Your task to perform on an android device: change text size in settings app Image 0: 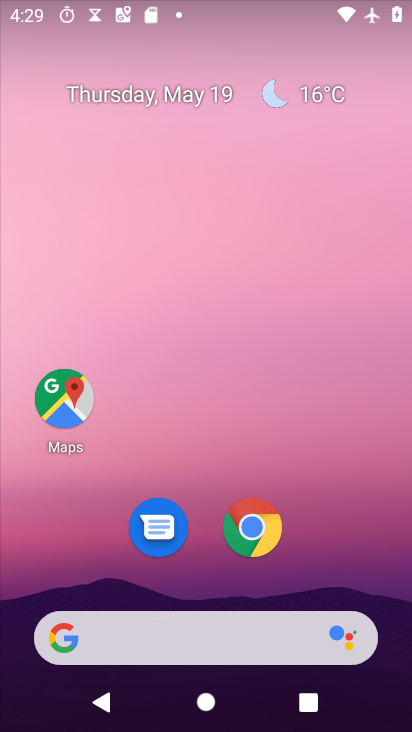
Step 0: drag from (326, 502) to (256, 46)
Your task to perform on an android device: change text size in settings app Image 1: 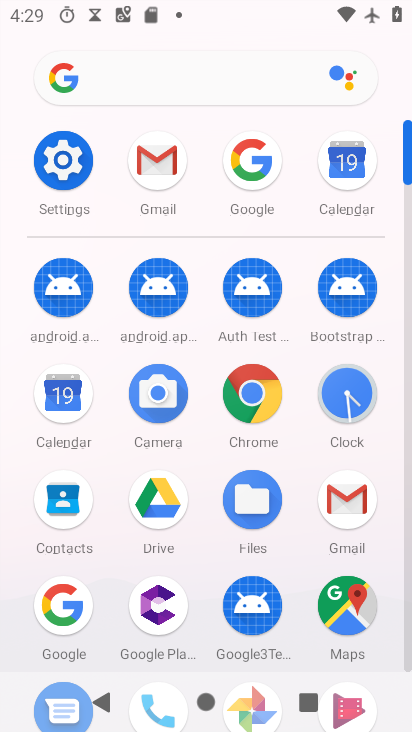
Step 1: click (71, 158)
Your task to perform on an android device: change text size in settings app Image 2: 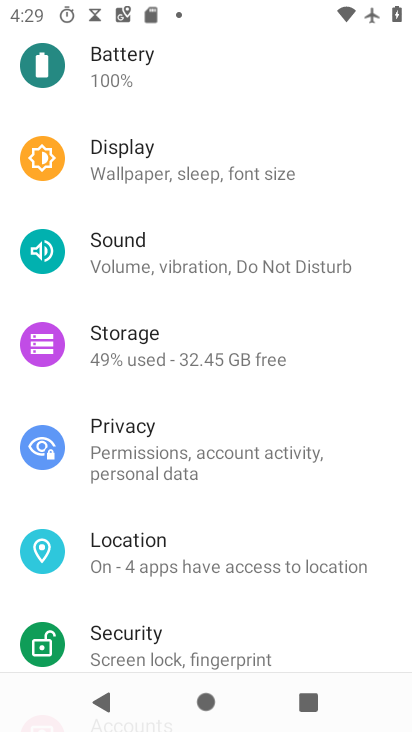
Step 2: click (189, 172)
Your task to perform on an android device: change text size in settings app Image 3: 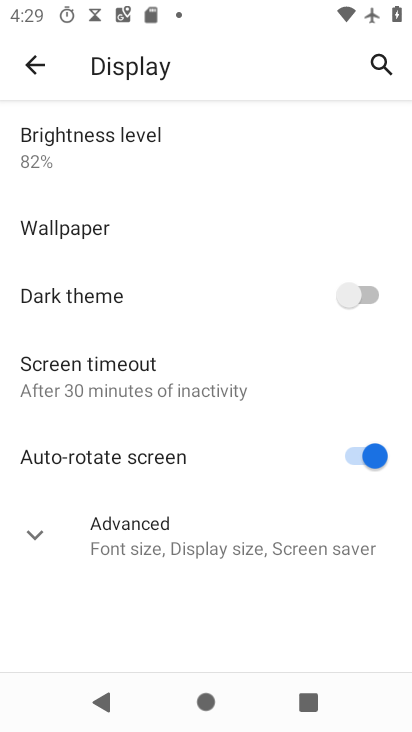
Step 3: click (156, 527)
Your task to perform on an android device: change text size in settings app Image 4: 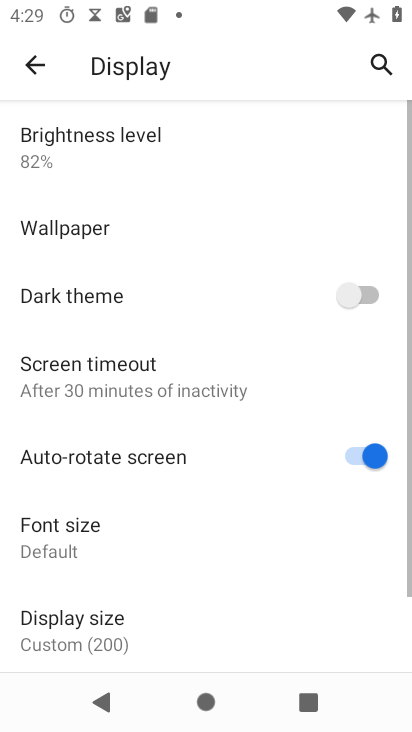
Step 4: click (156, 527)
Your task to perform on an android device: change text size in settings app Image 5: 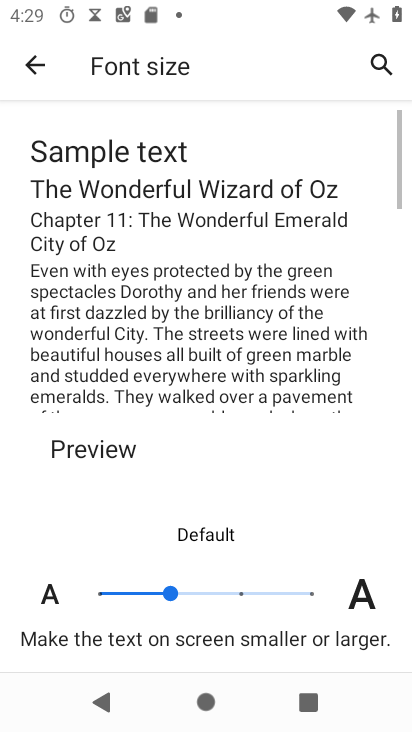
Step 5: click (104, 591)
Your task to perform on an android device: change text size in settings app Image 6: 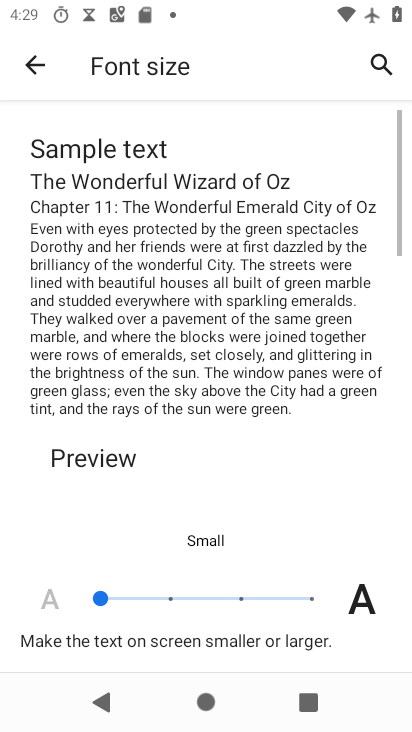
Step 6: task complete